Your task to perform on an android device: Go to wifi settings Image 0: 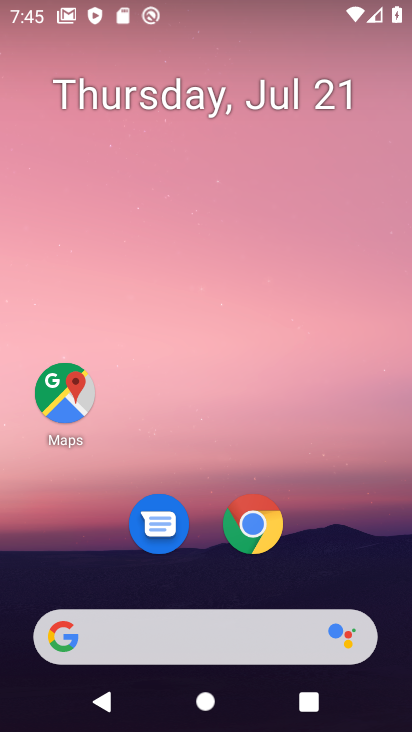
Step 0: press home button
Your task to perform on an android device: Go to wifi settings Image 1: 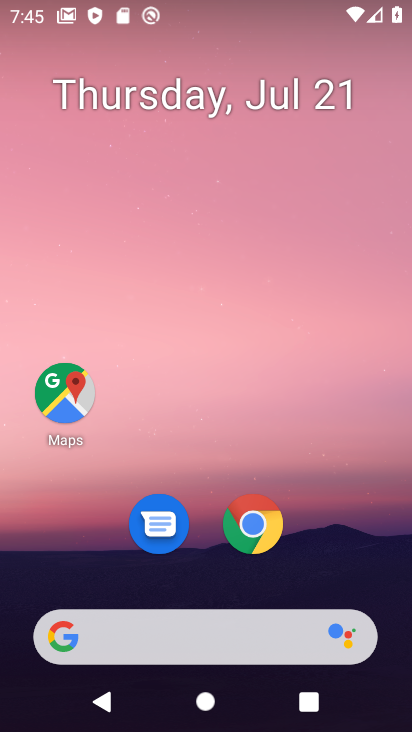
Step 1: drag from (214, 639) to (315, 103)
Your task to perform on an android device: Go to wifi settings Image 2: 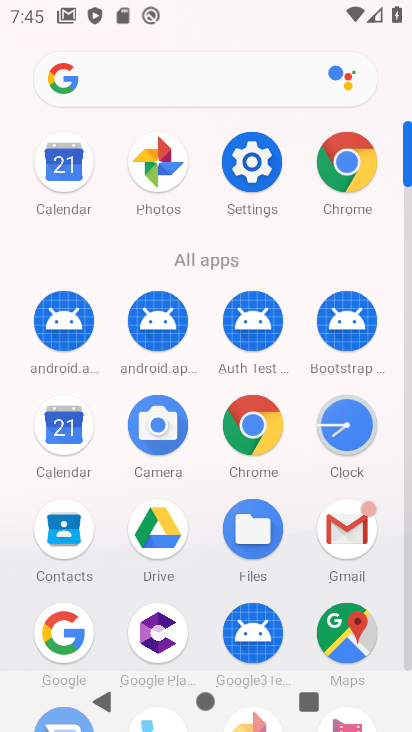
Step 2: click (257, 160)
Your task to perform on an android device: Go to wifi settings Image 3: 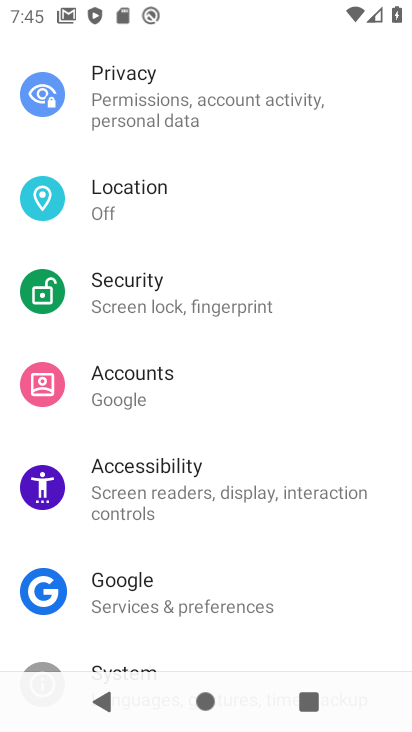
Step 3: drag from (299, 144) to (217, 551)
Your task to perform on an android device: Go to wifi settings Image 4: 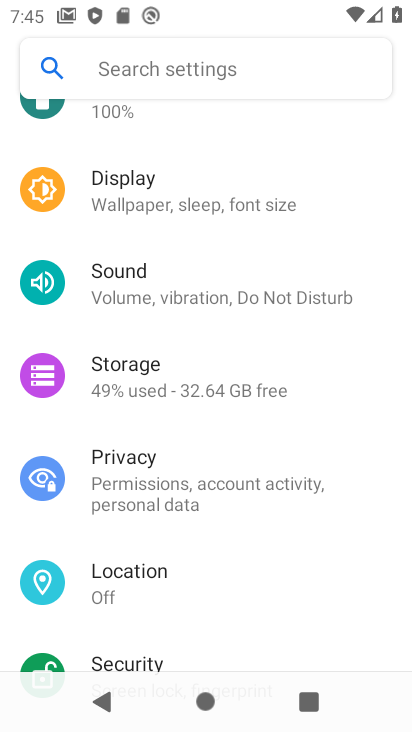
Step 4: drag from (301, 162) to (251, 529)
Your task to perform on an android device: Go to wifi settings Image 5: 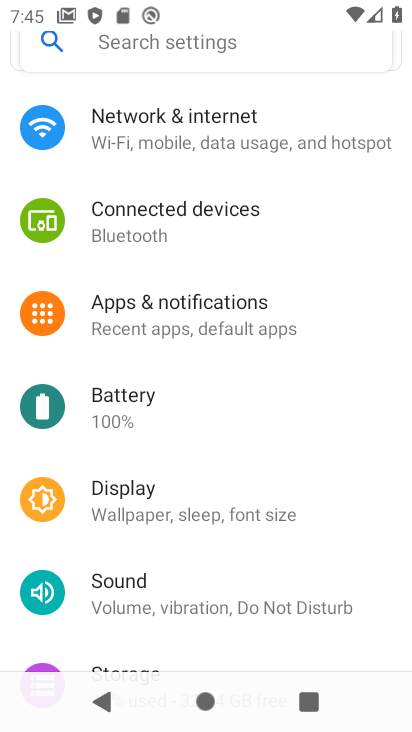
Step 5: drag from (300, 192) to (196, 556)
Your task to perform on an android device: Go to wifi settings Image 6: 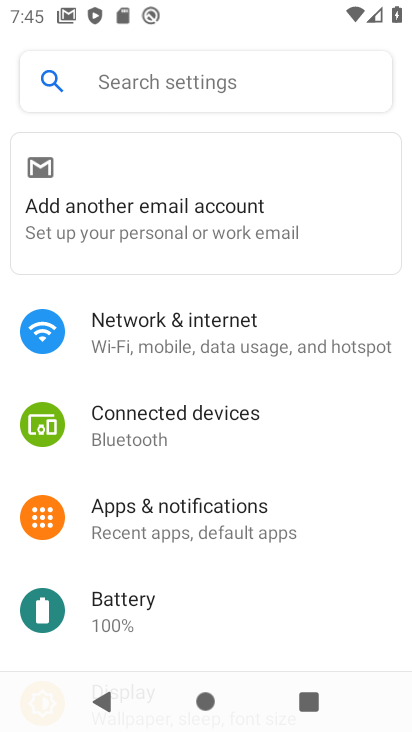
Step 6: click (198, 327)
Your task to perform on an android device: Go to wifi settings Image 7: 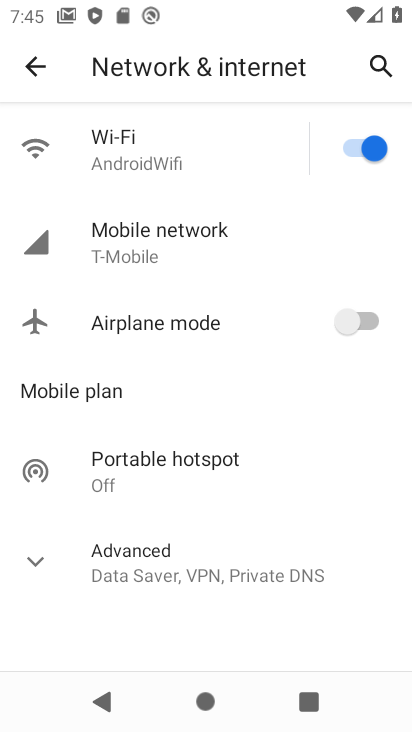
Step 7: click (142, 152)
Your task to perform on an android device: Go to wifi settings Image 8: 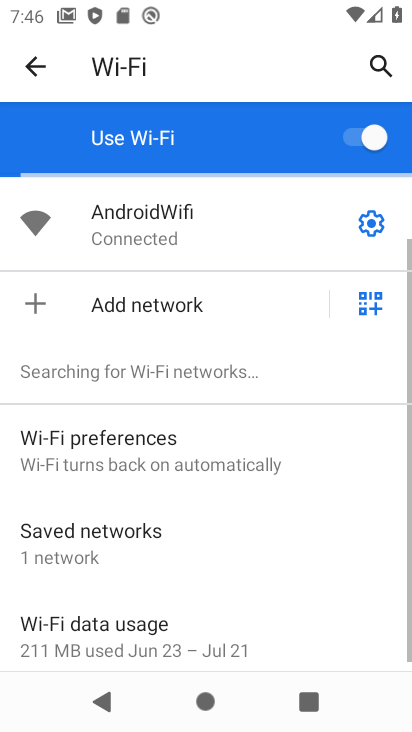
Step 8: task complete